Your task to perform on an android device: Add razer blackwidow to the cart on costco, then select checkout. Image 0: 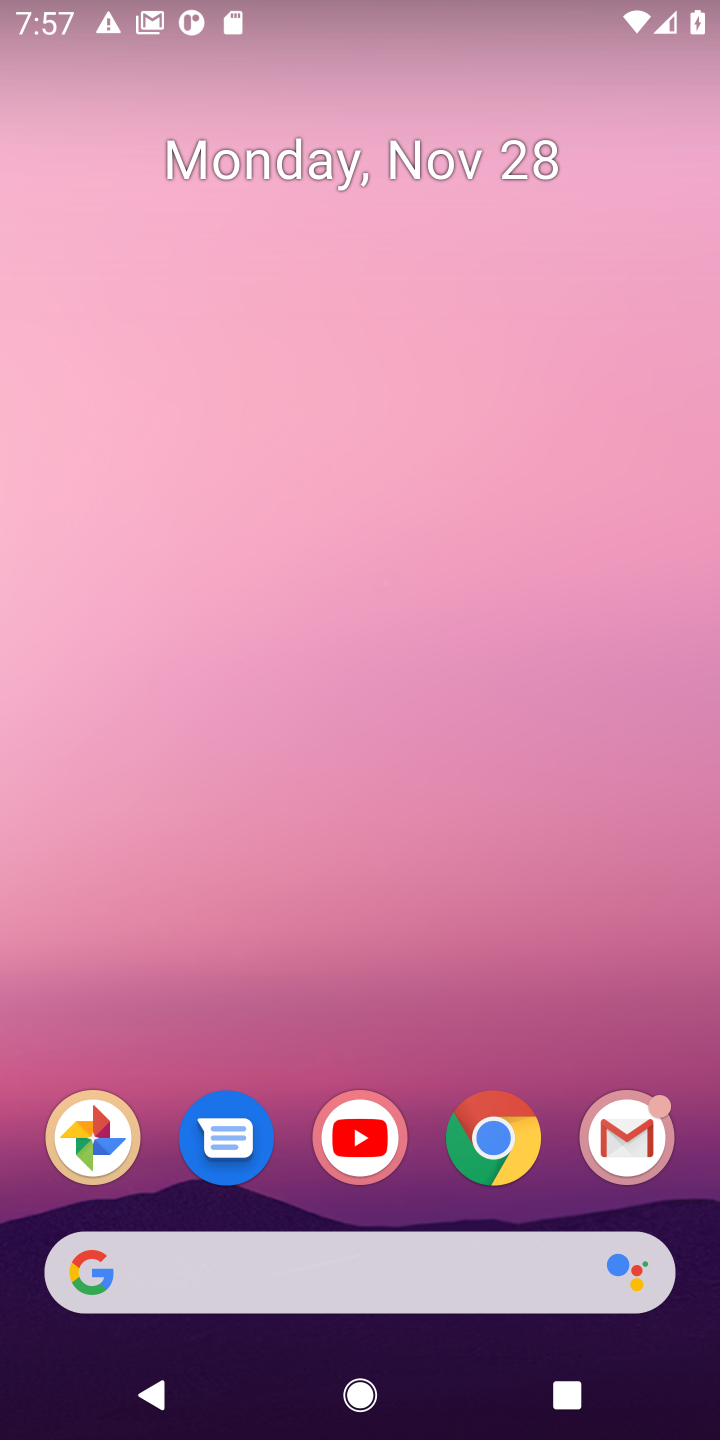
Step 0: click (494, 1150)
Your task to perform on an android device: Add razer blackwidow to the cart on costco, then select checkout. Image 1: 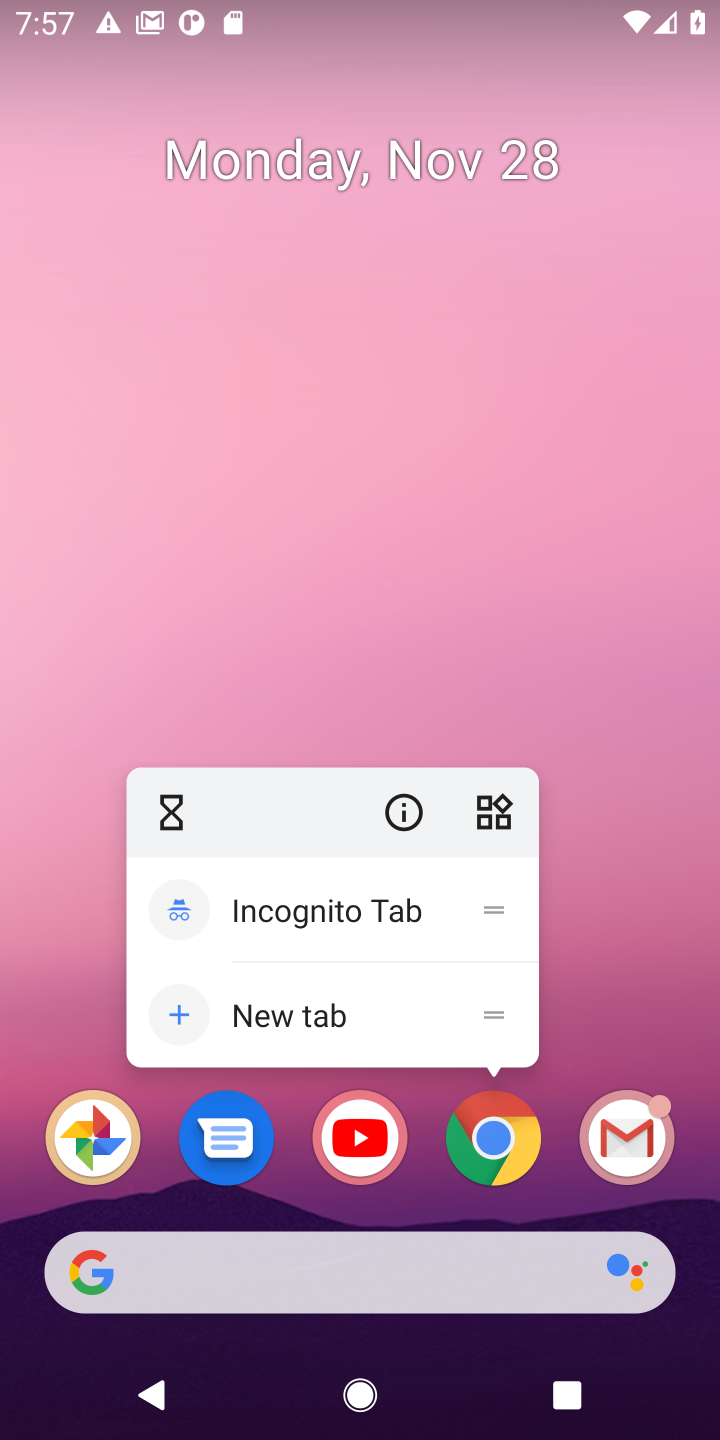
Step 1: click (494, 1150)
Your task to perform on an android device: Add razer blackwidow to the cart on costco, then select checkout. Image 2: 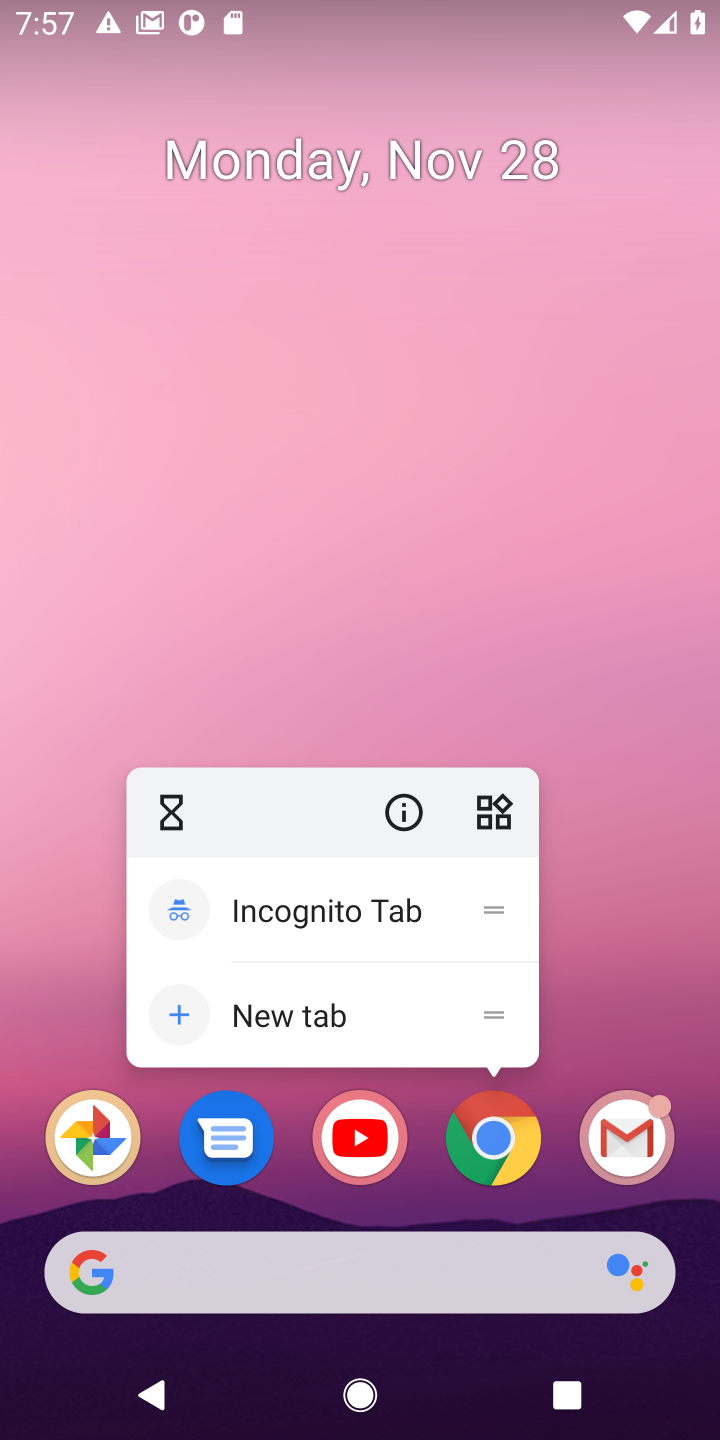
Step 2: click (494, 1150)
Your task to perform on an android device: Add razer blackwidow to the cart on costco, then select checkout. Image 3: 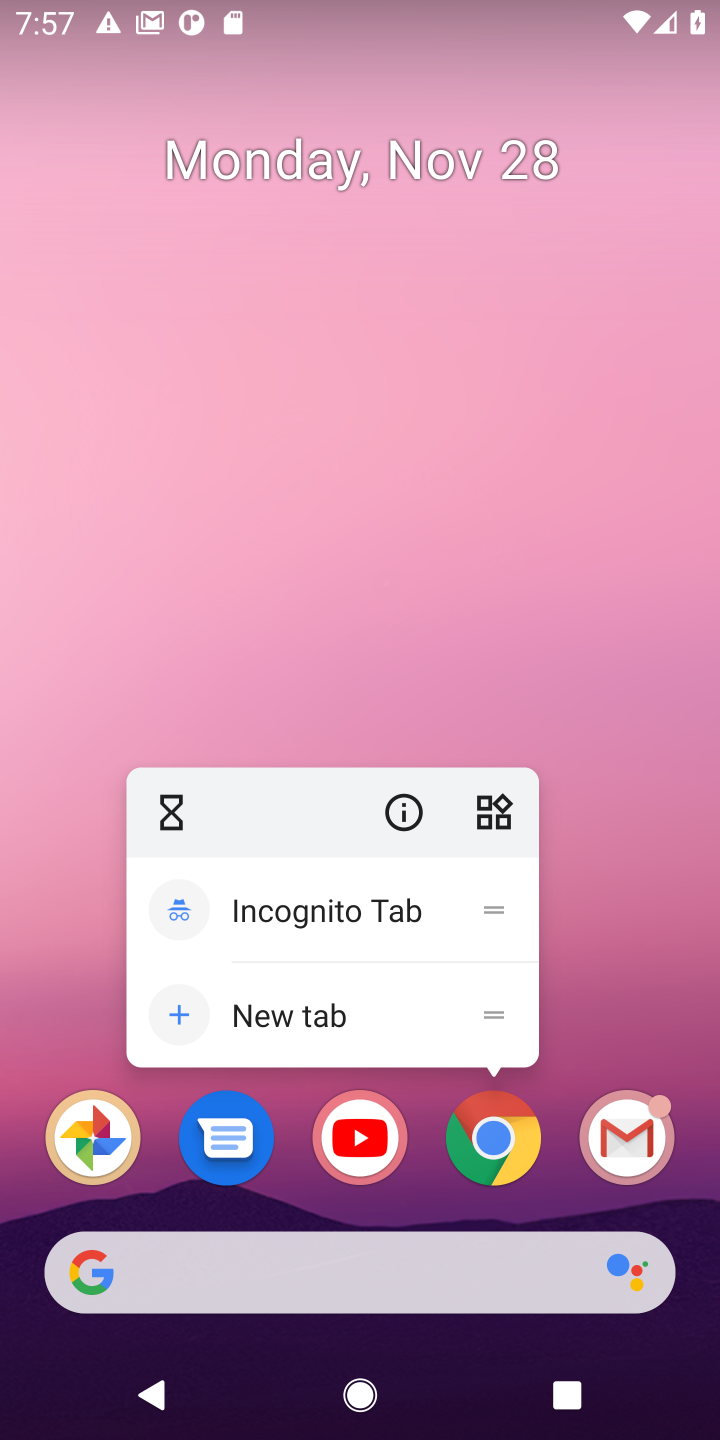
Step 3: click (494, 1150)
Your task to perform on an android device: Add razer blackwidow to the cart on costco, then select checkout. Image 4: 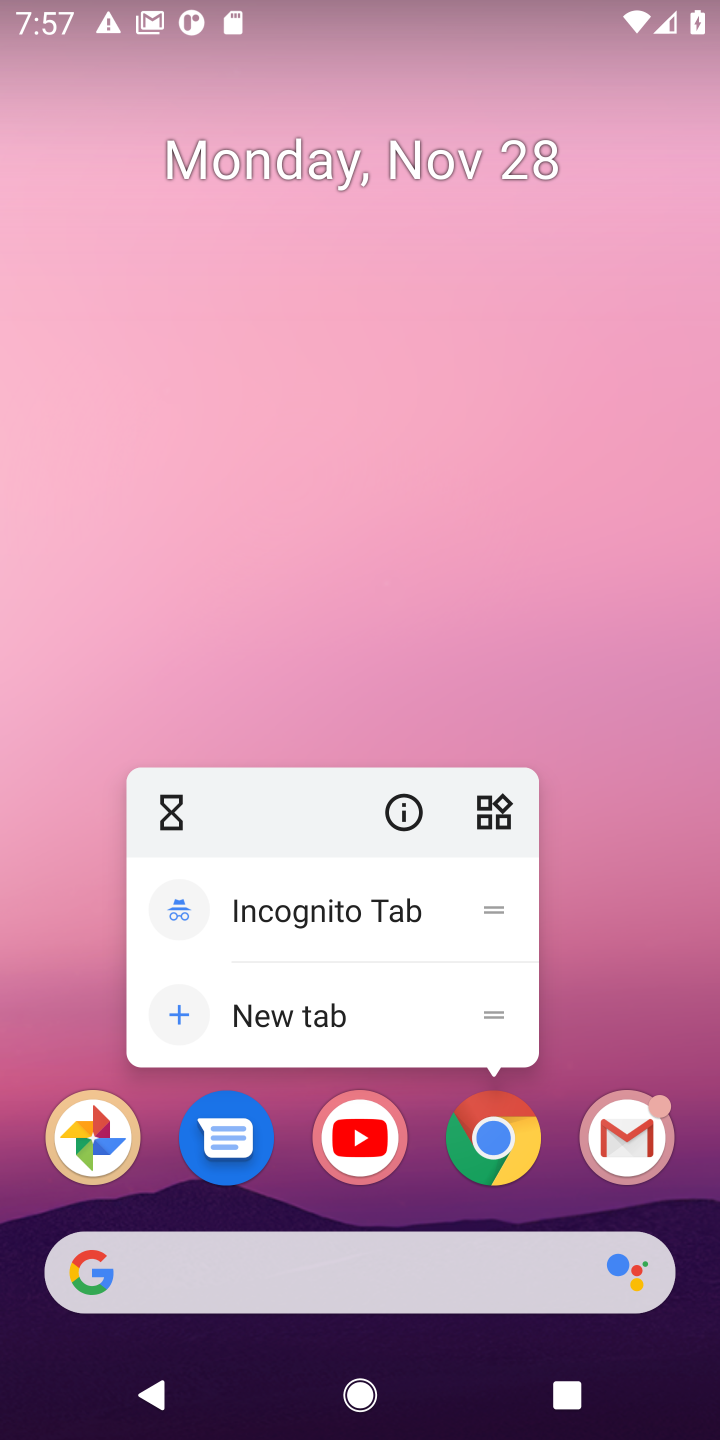
Step 4: click (639, 974)
Your task to perform on an android device: Add razer blackwidow to the cart on costco, then select checkout. Image 5: 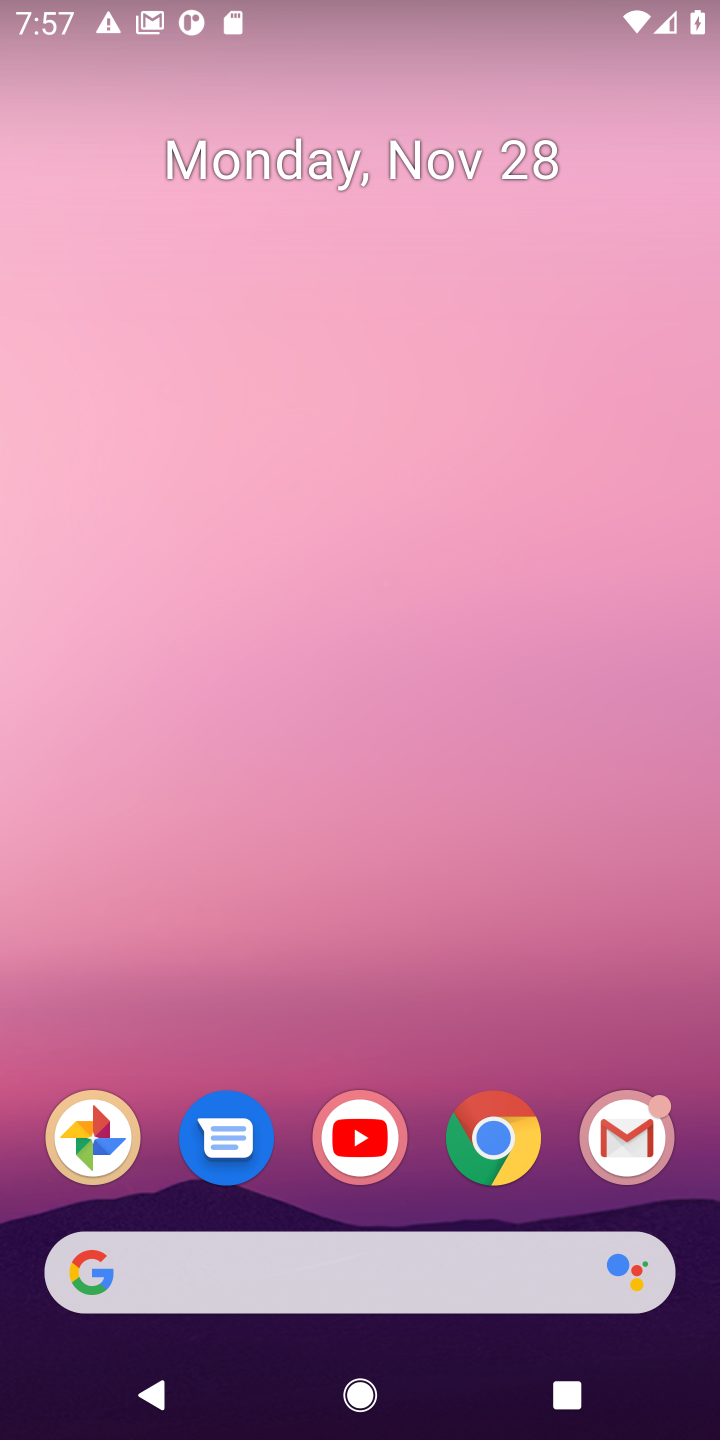
Step 5: click (497, 1130)
Your task to perform on an android device: Add razer blackwidow to the cart on costco, then select checkout. Image 6: 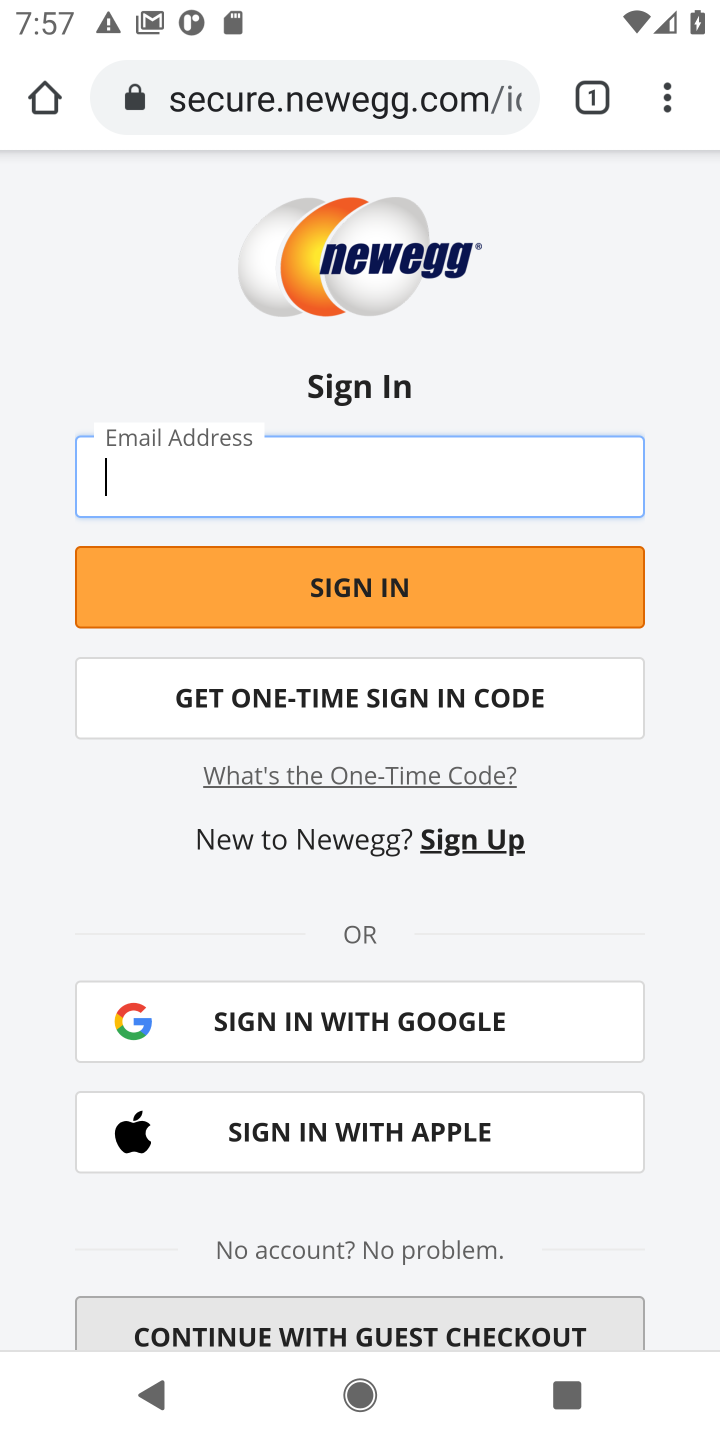
Step 6: click (294, 101)
Your task to perform on an android device: Add razer blackwidow to the cart on costco, then select checkout. Image 7: 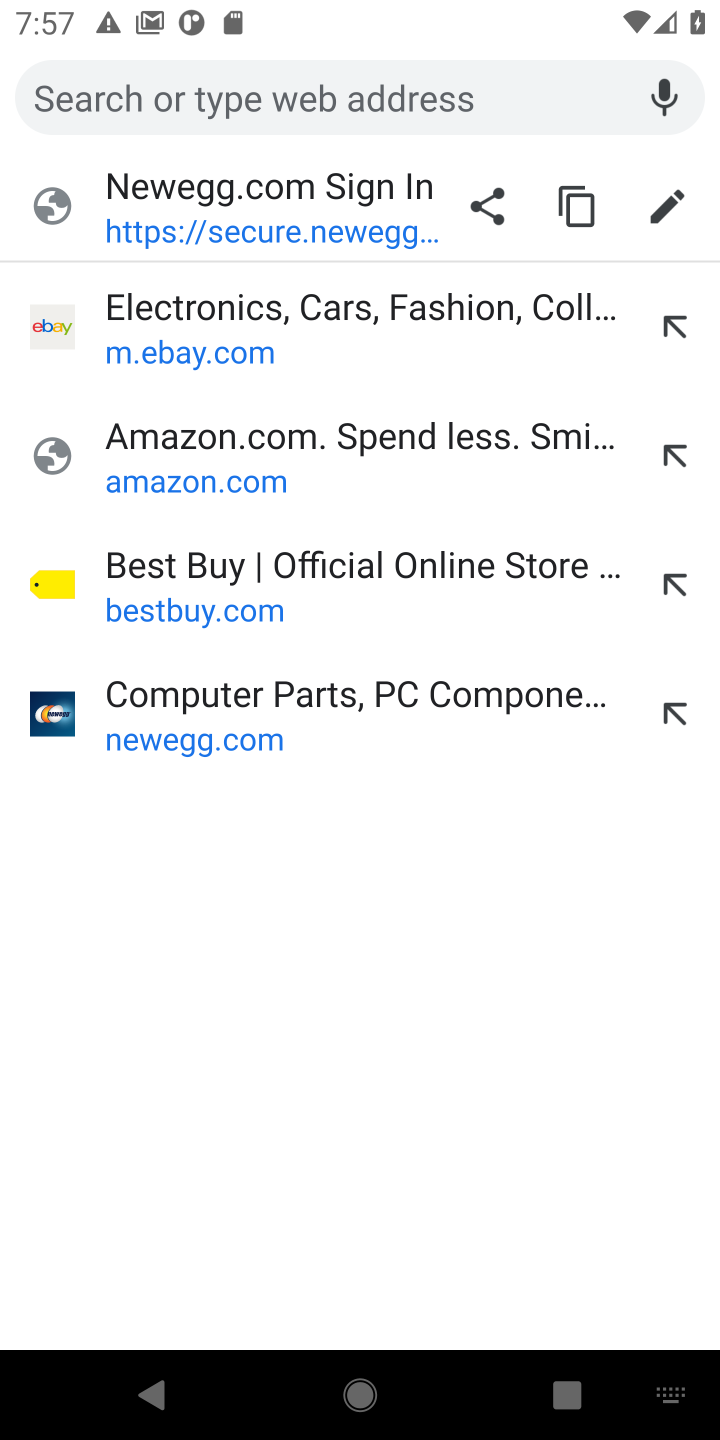
Step 7: type "costco.com"
Your task to perform on an android device: Add razer blackwidow to the cart on costco, then select checkout. Image 8: 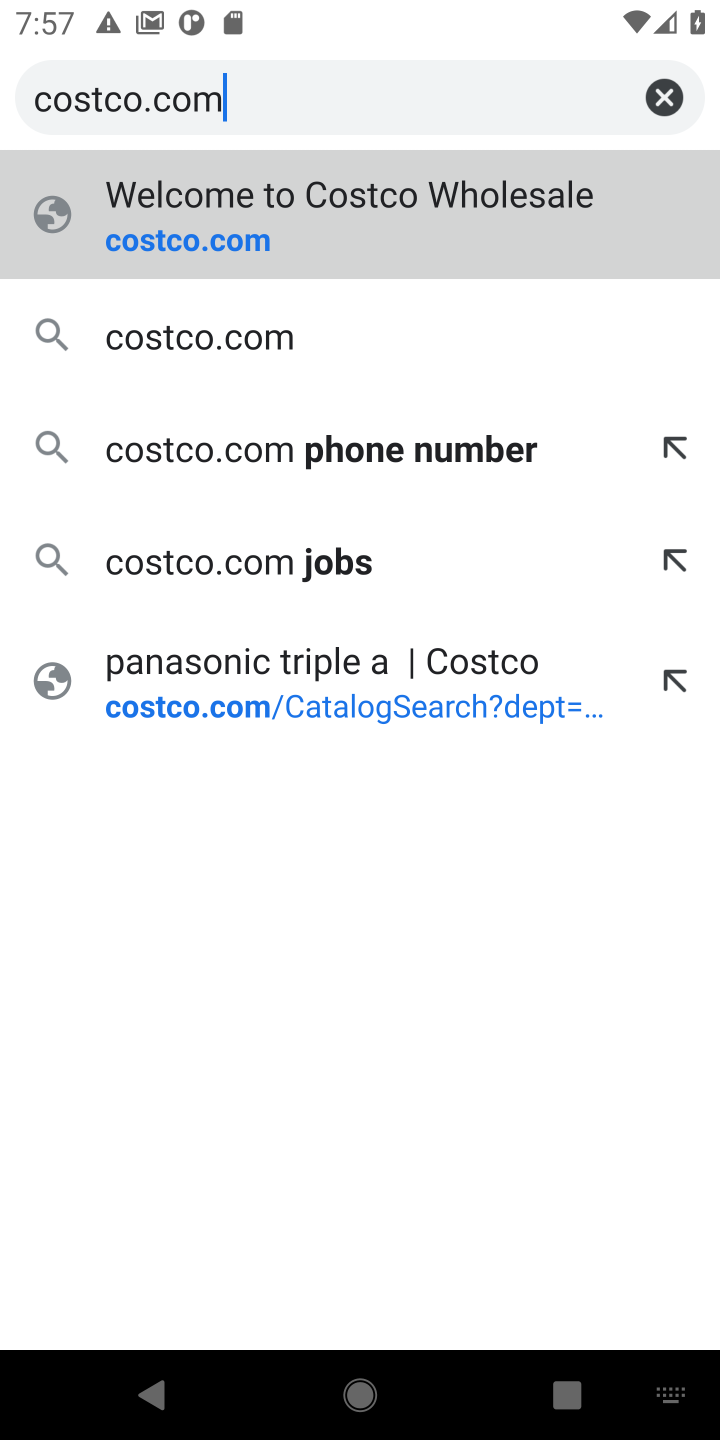
Step 8: click (178, 238)
Your task to perform on an android device: Add razer blackwidow to the cart on costco, then select checkout. Image 9: 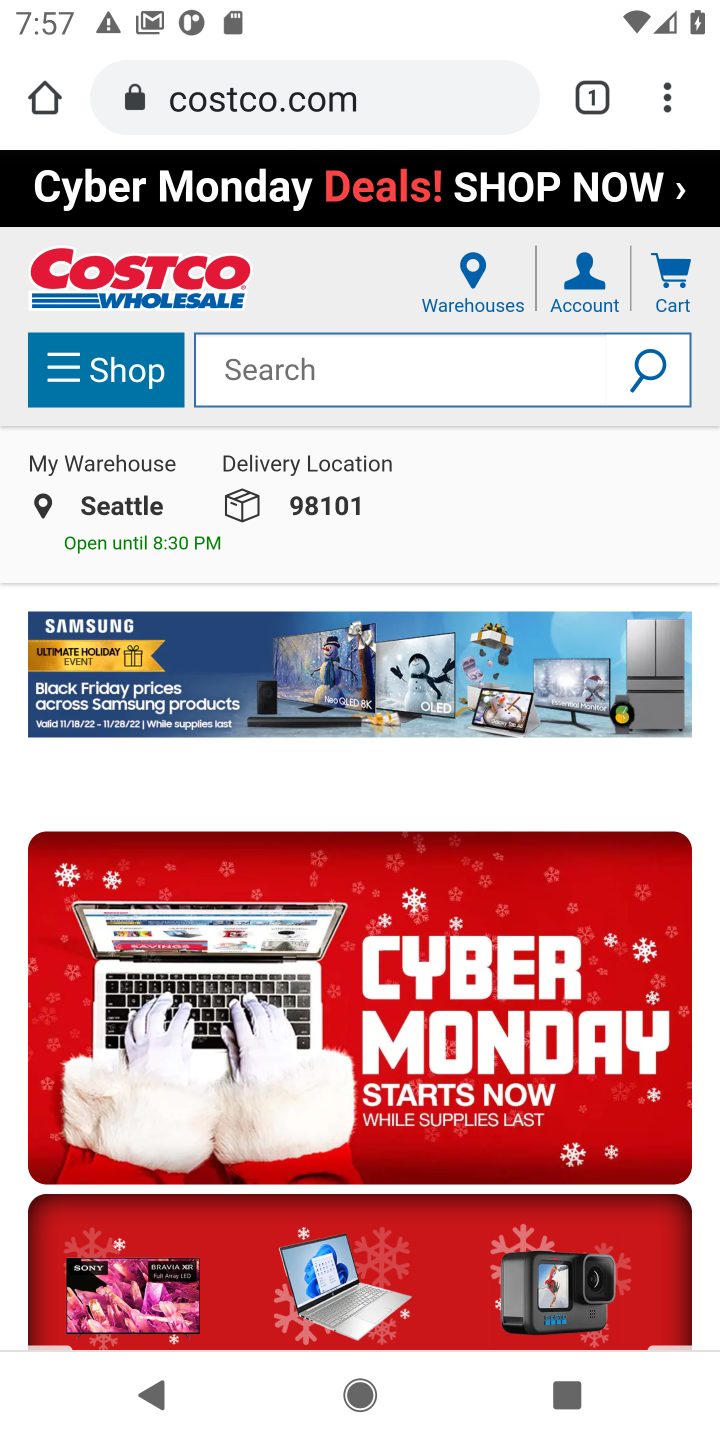
Step 9: click (255, 384)
Your task to perform on an android device: Add razer blackwidow to the cart on costco, then select checkout. Image 10: 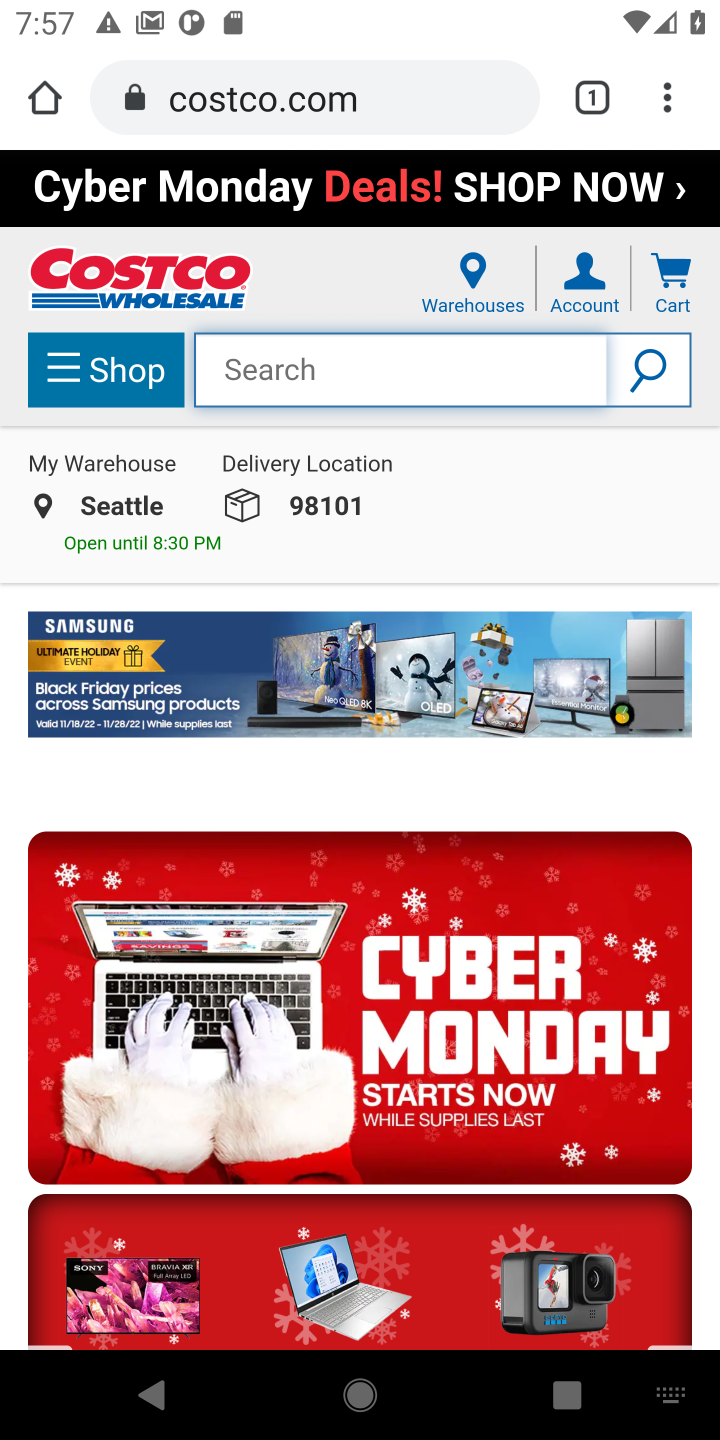
Step 10: type "razer blackwidow"
Your task to perform on an android device: Add razer blackwidow to the cart on costco, then select checkout. Image 11: 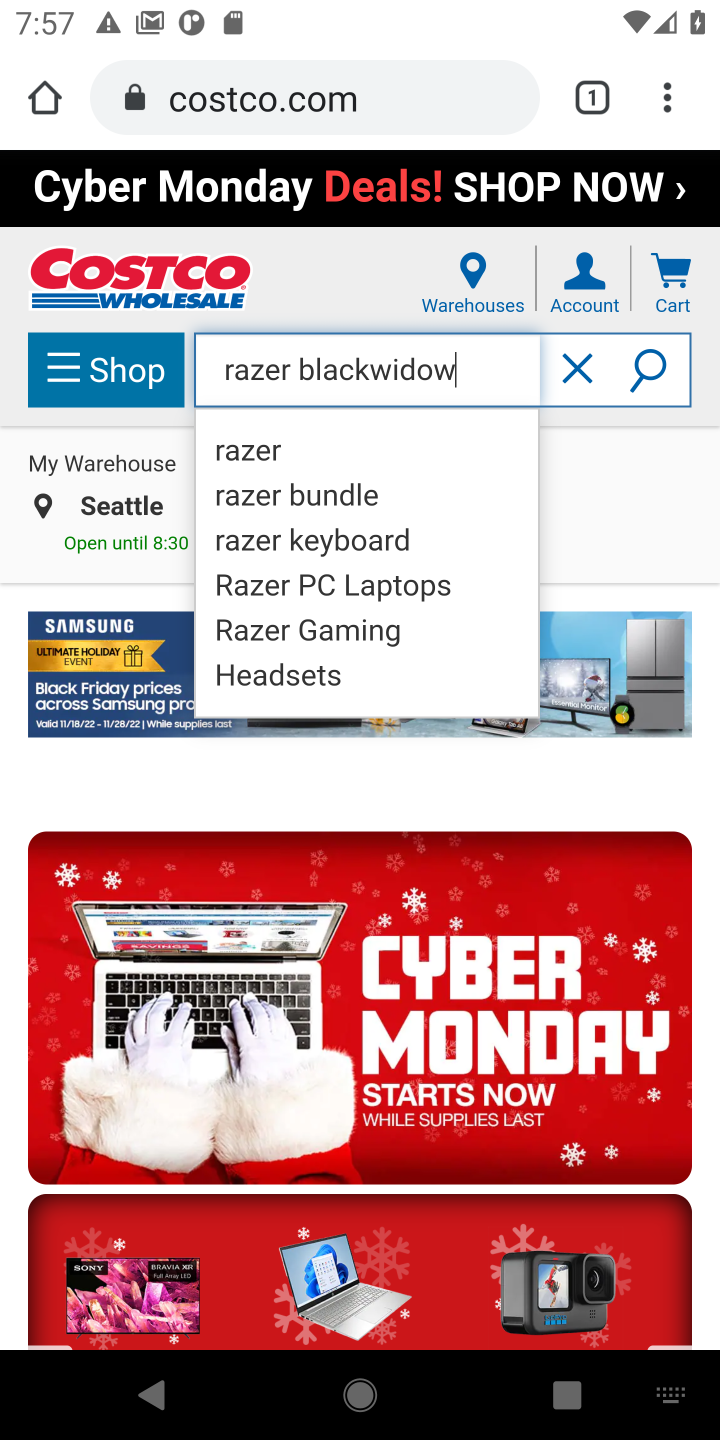
Step 11: click (635, 370)
Your task to perform on an android device: Add razer blackwidow to the cart on costco, then select checkout. Image 12: 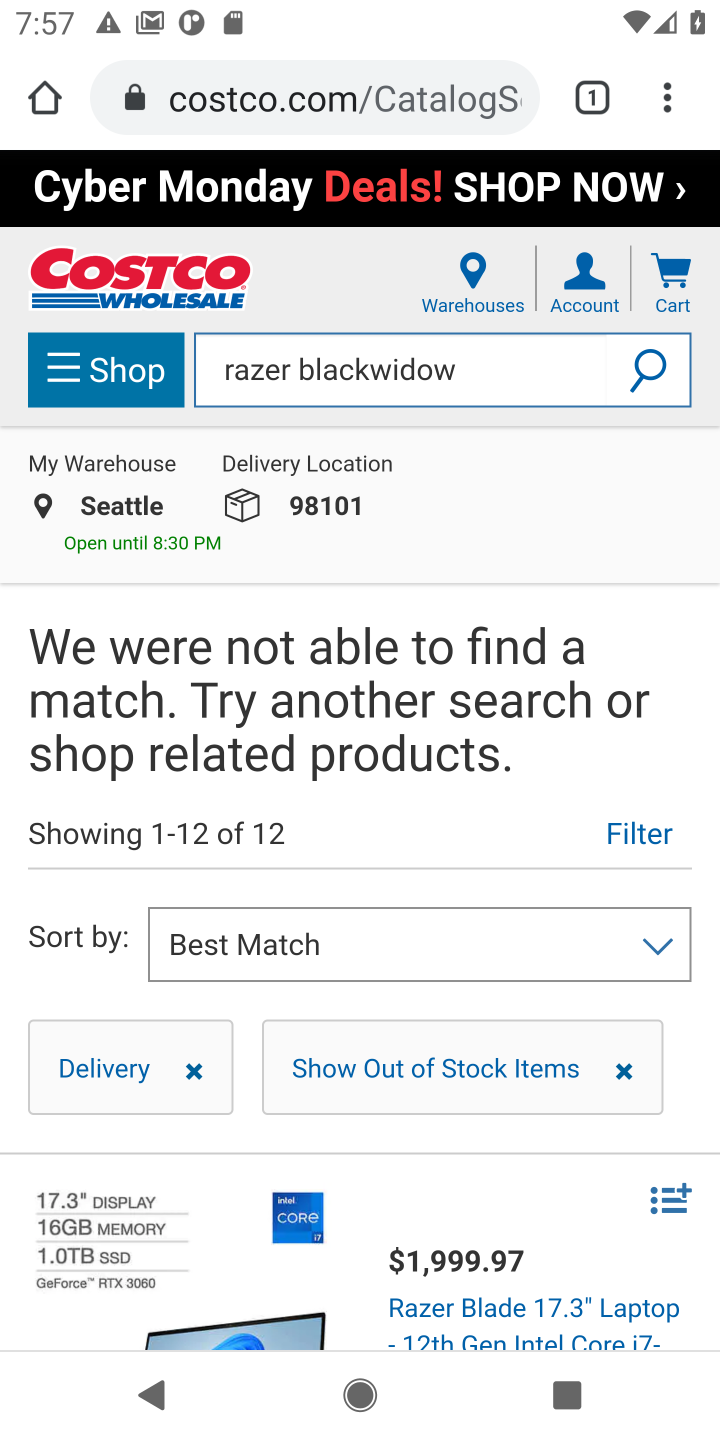
Step 12: task complete